Your task to perform on an android device: change the clock display to analog Image 0: 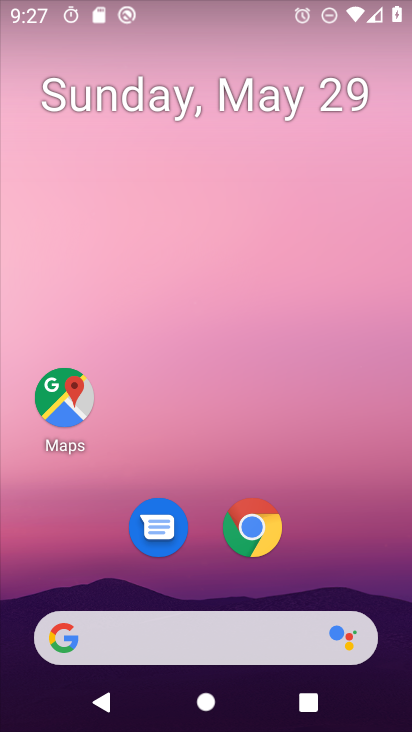
Step 0: drag from (393, 619) to (297, 14)
Your task to perform on an android device: change the clock display to analog Image 1: 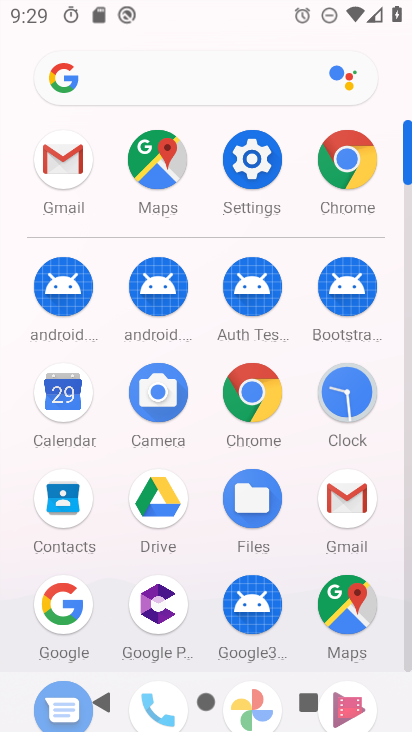
Step 1: click (354, 404)
Your task to perform on an android device: change the clock display to analog Image 2: 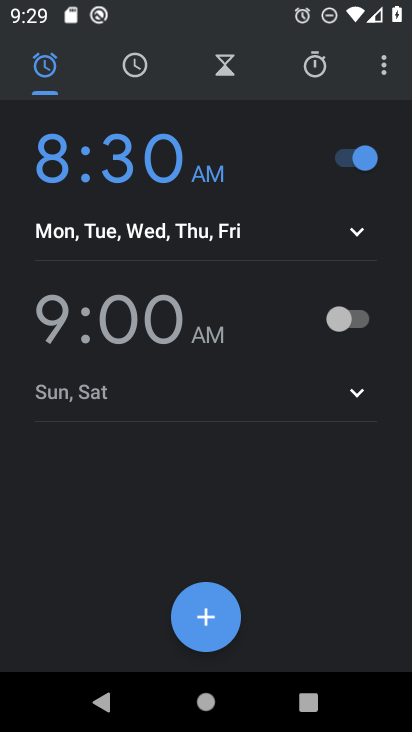
Step 2: click (378, 65)
Your task to perform on an android device: change the clock display to analog Image 3: 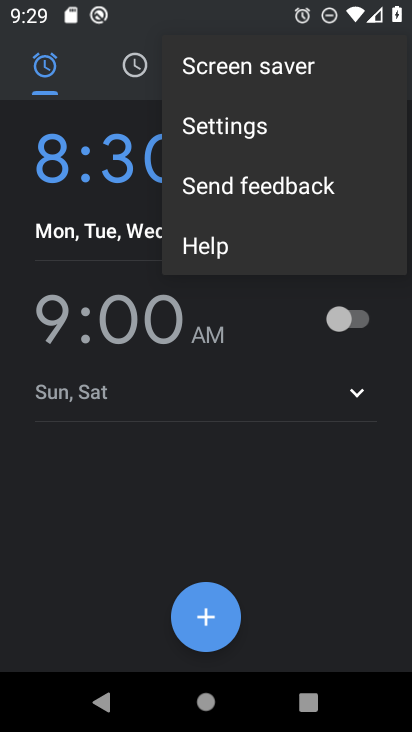
Step 3: click (247, 123)
Your task to perform on an android device: change the clock display to analog Image 4: 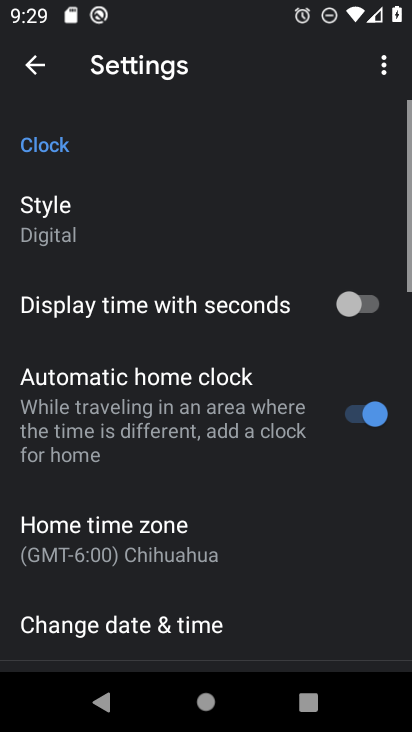
Step 4: click (84, 234)
Your task to perform on an android device: change the clock display to analog Image 5: 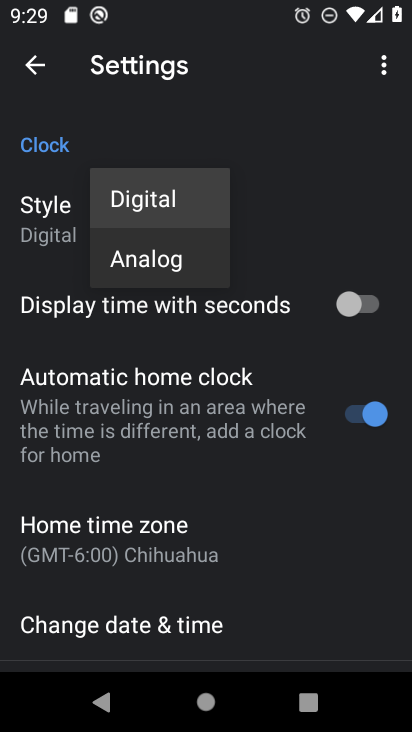
Step 5: click (154, 250)
Your task to perform on an android device: change the clock display to analog Image 6: 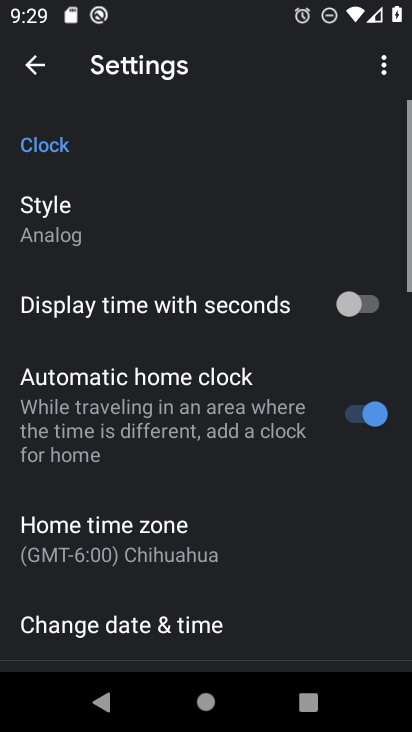
Step 6: task complete